Your task to perform on an android device: turn on notifications settings in the gmail app Image 0: 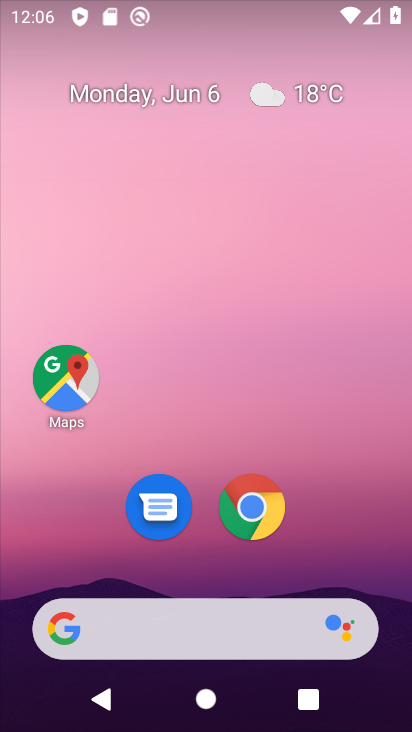
Step 0: drag from (188, 526) to (192, 242)
Your task to perform on an android device: turn on notifications settings in the gmail app Image 1: 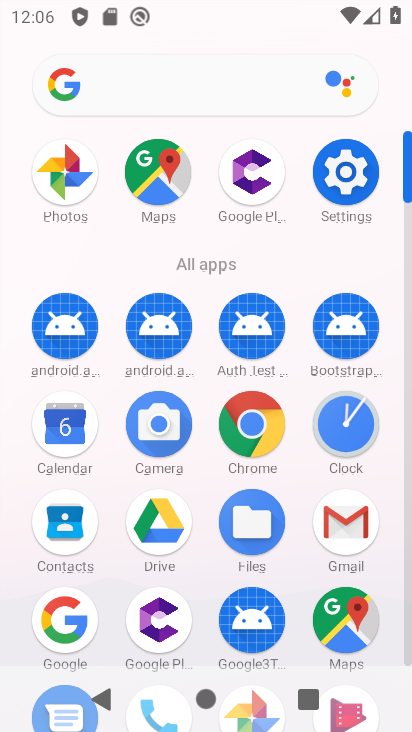
Step 1: click (347, 531)
Your task to perform on an android device: turn on notifications settings in the gmail app Image 2: 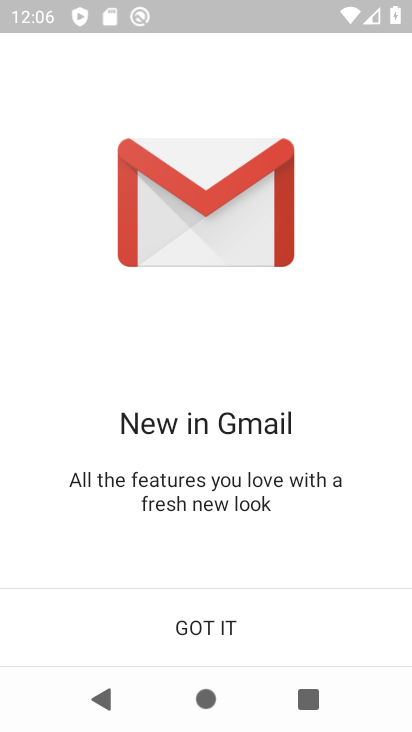
Step 2: click (185, 626)
Your task to perform on an android device: turn on notifications settings in the gmail app Image 3: 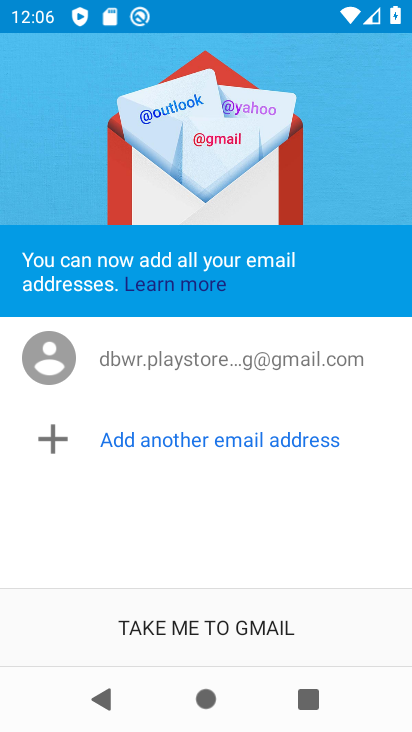
Step 3: click (168, 651)
Your task to perform on an android device: turn on notifications settings in the gmail app Image 4: 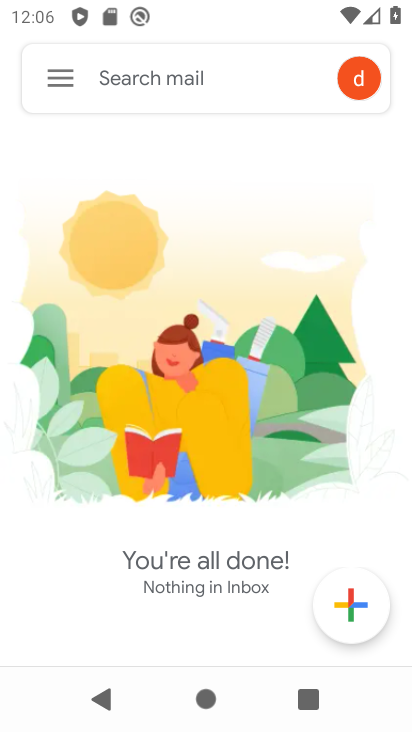
Step 4: click (65, 82)
Your task to perform on an android device: turn on notifications settings in the gmail app Image 5: 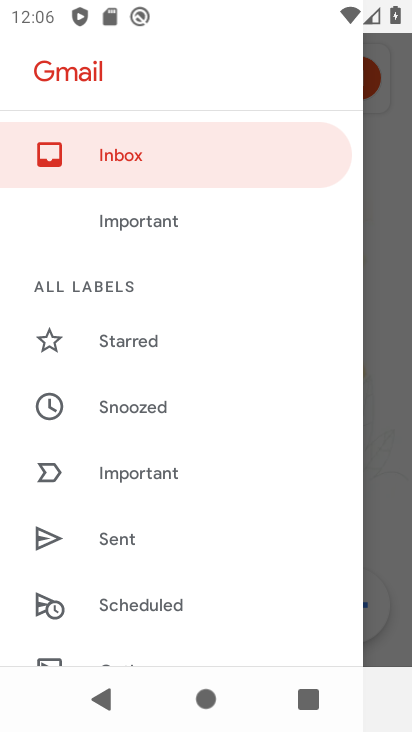
Step 5: drag from (114, 584) to (169, 315)
Your task to perform on an android device: turn on notifications settings in the gmail app Image 6: 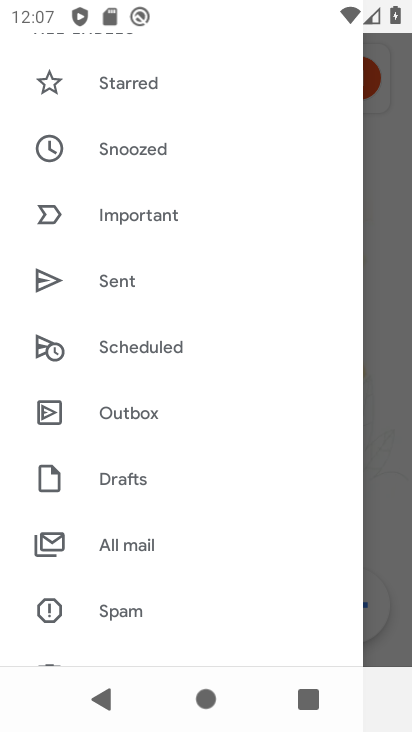
Step 6: drag from (159, 565) to (243, 256)
Your task to perform on an android device: turn on notifications settings in the gmail app Image 7: 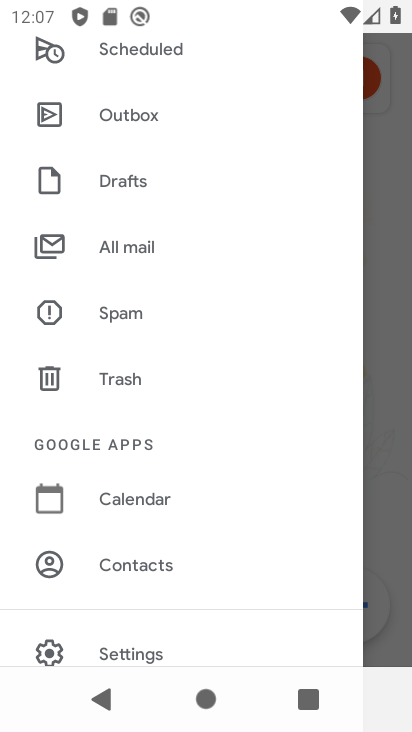
Step 7: click (143, 652)
Your task to perform on an android device: turn on notifications settings in the gmail app Image 8: 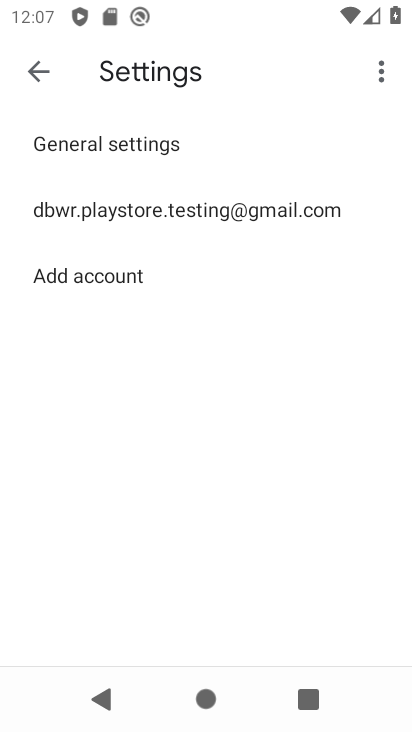
Step 8: click (270, 212)
Your task to perform on an android device: turn on notifications settings in the gmail app Image 9: 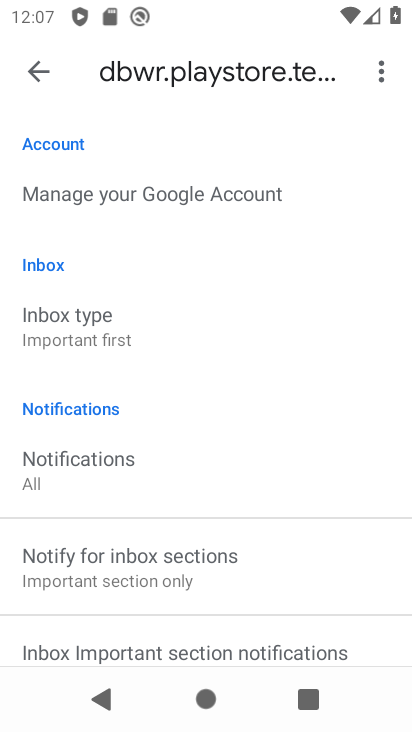
Step 9: drag from (199, 592) to (250, 257)
Your task to perform on an android device: turn on notifications settings in the gmail app Image 10: 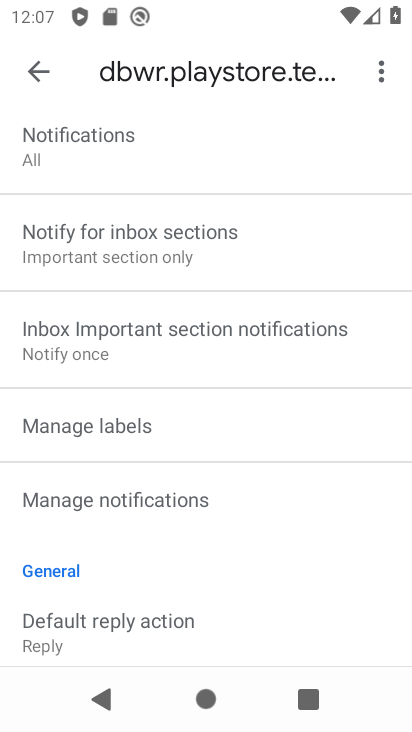
Step 10: click (154, 135)
Your task to perform on an android device: turn on notifications settings in the gmail app Image 11: 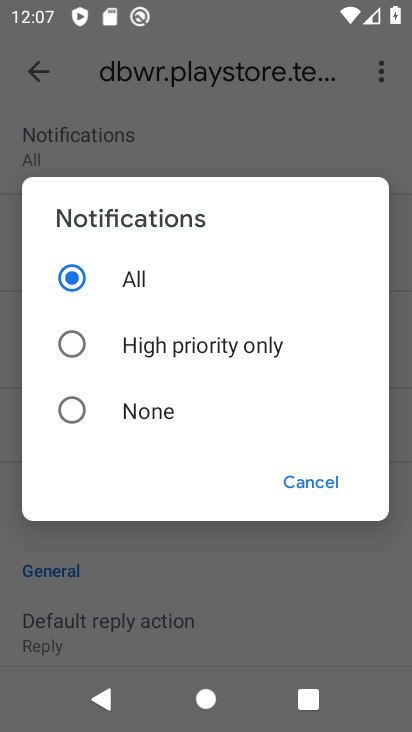
Step 11: task complete